Your task to perform on an android device: Open the calendar and show me this week's events? Image 0: 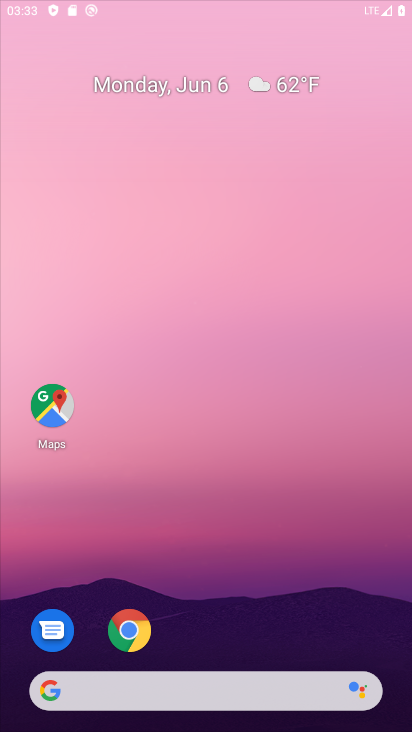
Step 0: press home button
Your task to perform on an android device: Open the calendar and show me this week's events? Image 1: 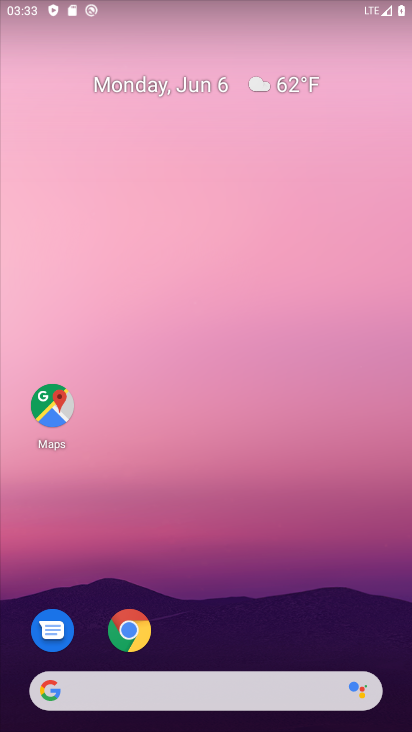
Step 1: drag from (265, 685) to (256, 135)
Your task to perform on an android device: Open the calendar and show me this week's events? Image 2: 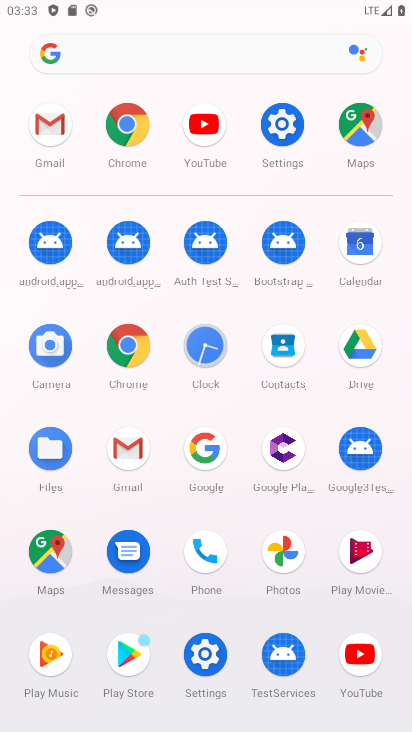
Step 2: click (371, 232)
Your task to perform on an android device: Open the calendar and show me this week's events? Image 3: 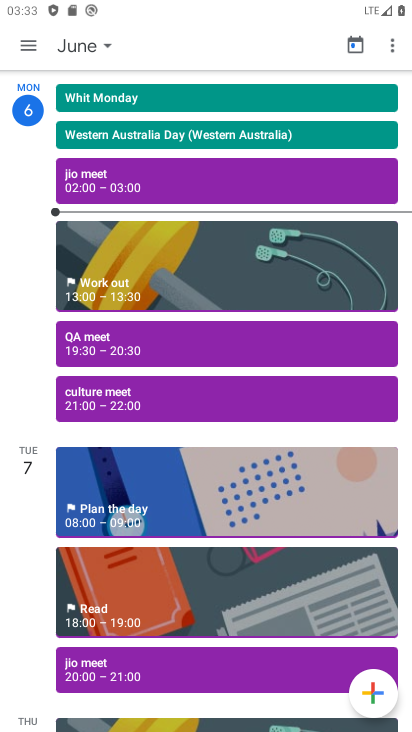
Step 3: click (90, 48)
Your task to perform on an android device: Open the calendar and show me this week's events? Image 4: 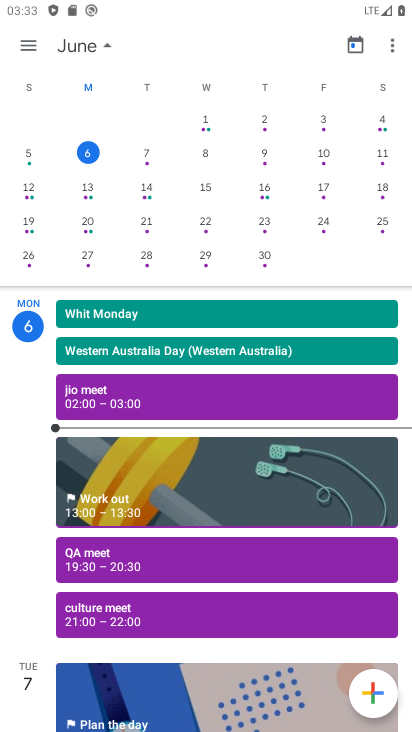
Step 4: click (382, 148)
Your task to perform on an android device: Open the calendar and show me this week's events? Image 5: 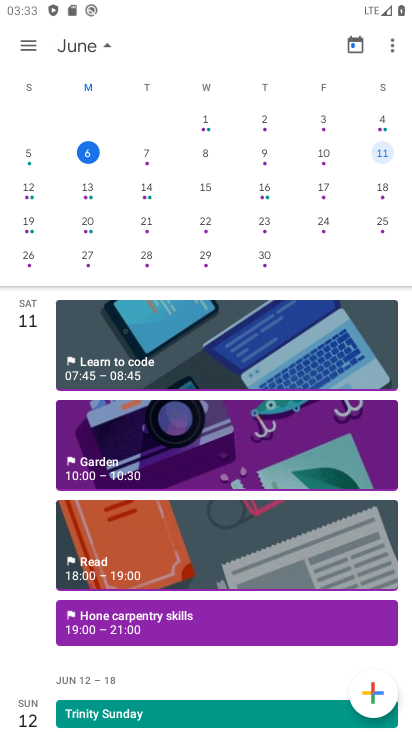
Step 5: click (91, 51)
Your task to perform on an android device: Open the calendar and show me this week's events? Image 6: 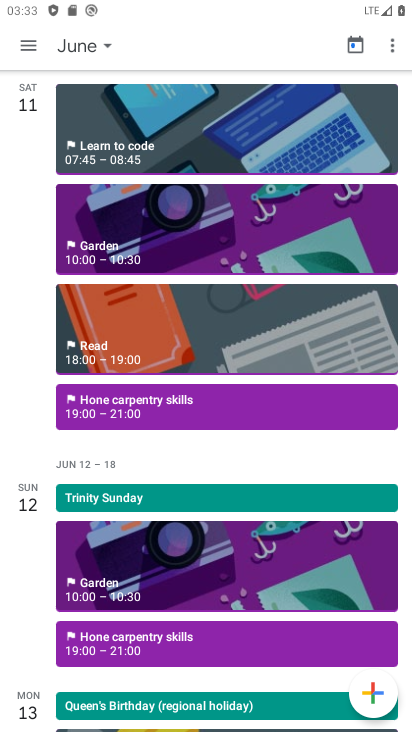
Step 6: task complete